Your task to perform on an android device: open device folders in google photos Image 0: 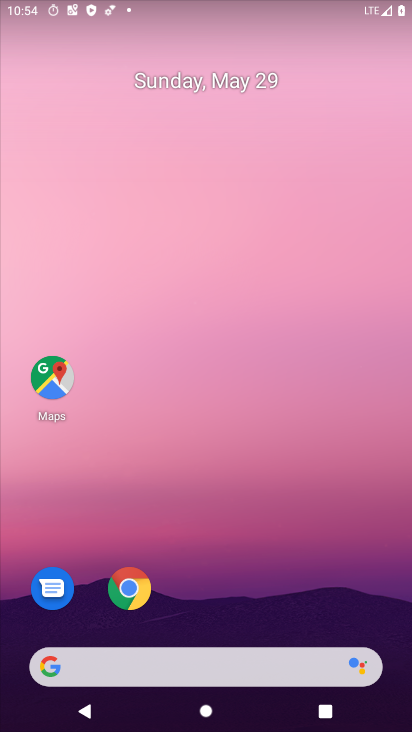
Step 0: drag from (230, 626) to (304, 146)
Your task to perform on an android device: open device folders in google photos Image 1: 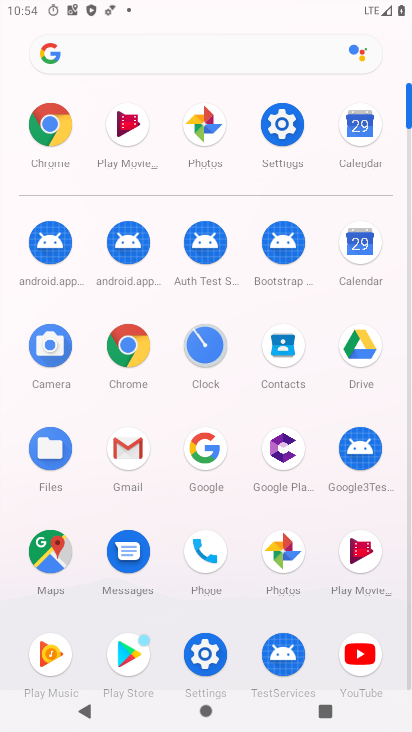
Step 1: click (281, 548)
Your task to perform on an android device: open device folders in google photos Image 2: 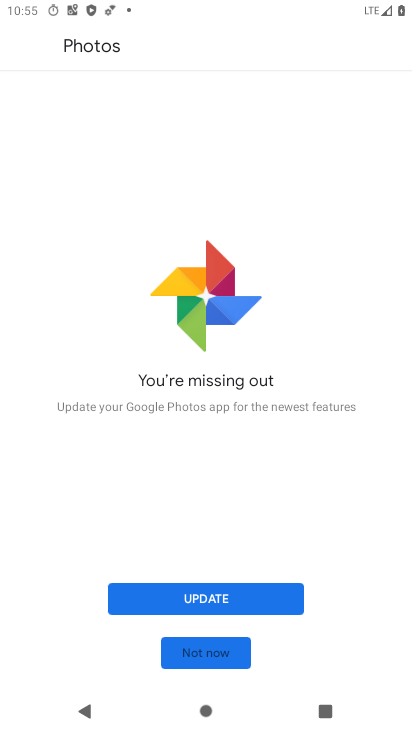
Step 2: click (221, 602)
Your task to perform on an android device: open device folders in google photos Image 3: 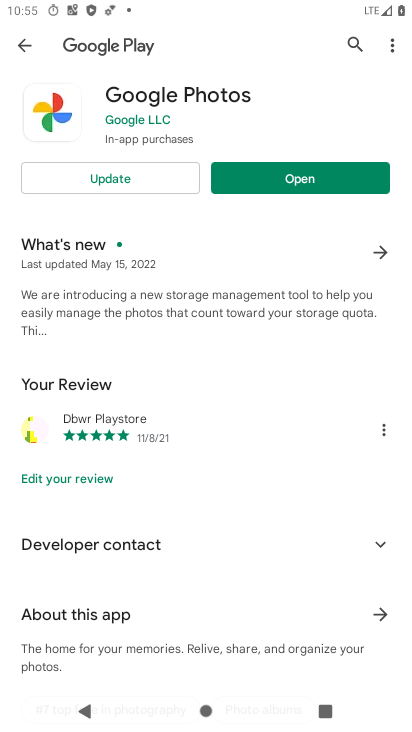
Step 3: click (146, 190)
Your task to perform on an android device: open device folders in google photos Image 4: 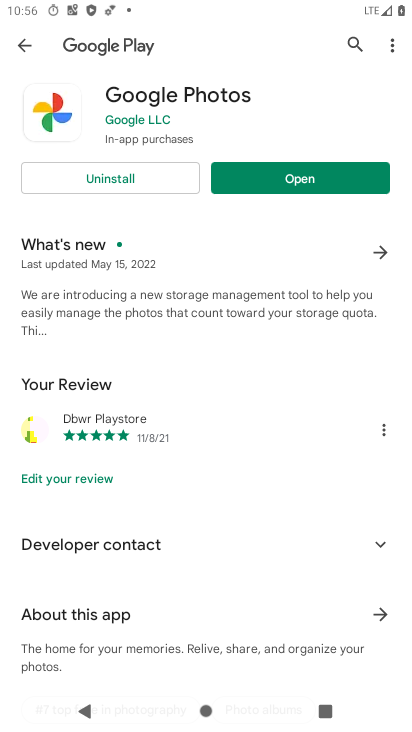
Step 4: click (332, 182)
Your task to perform on an android device: open device folders in google photos Image 5: 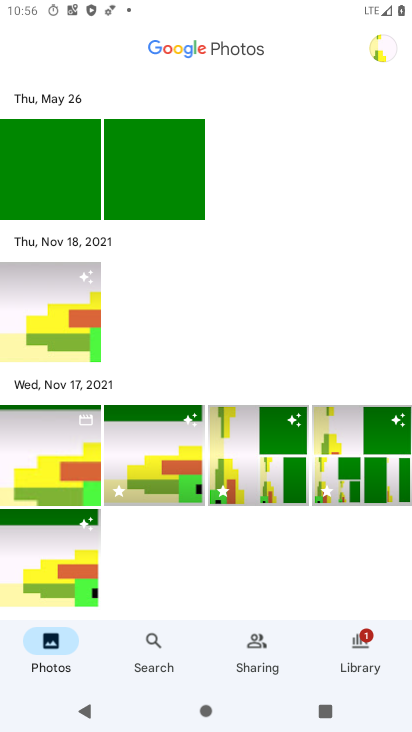
Step 5: click (373, 61)
Your task to perform on an android device: open device folders in google photos Image 6: 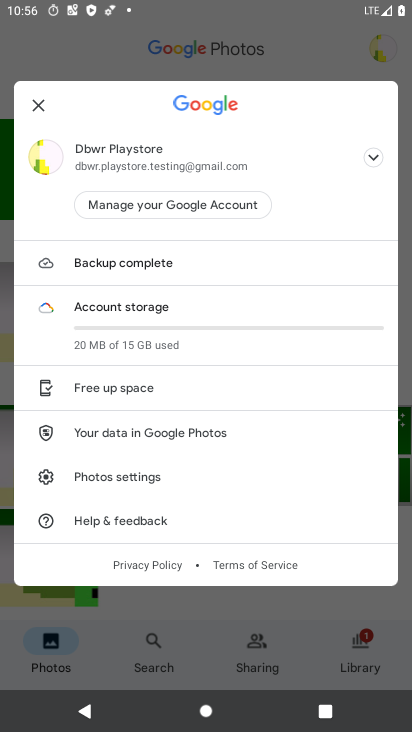
Step 6: click (164, 480)
Your task to perform on an android device: open device folders in google photos Image 7: 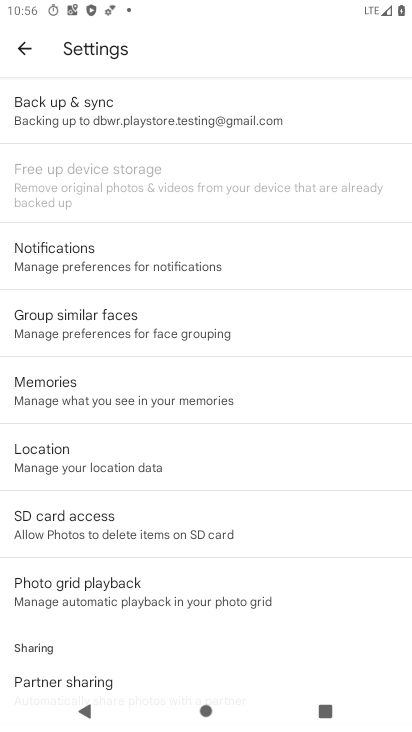
Step 7: click (148, 99)
Your task to perform on an android device: open device folders in google photos Image 8: 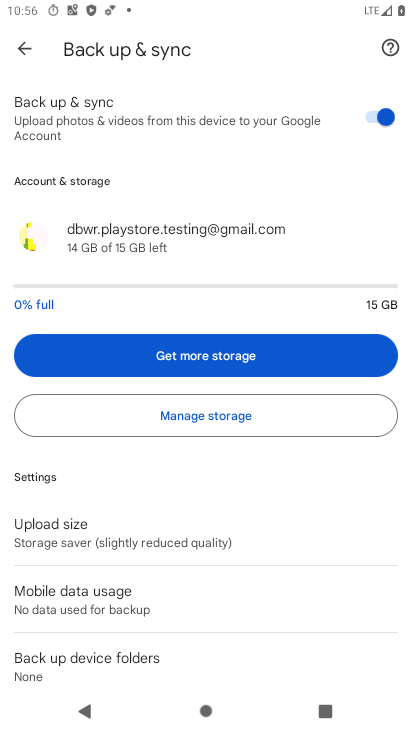
Step 8: drag from (169, 607) to (215, 210)
Your task to perform on an android device: open device folders in google photos Image 9: 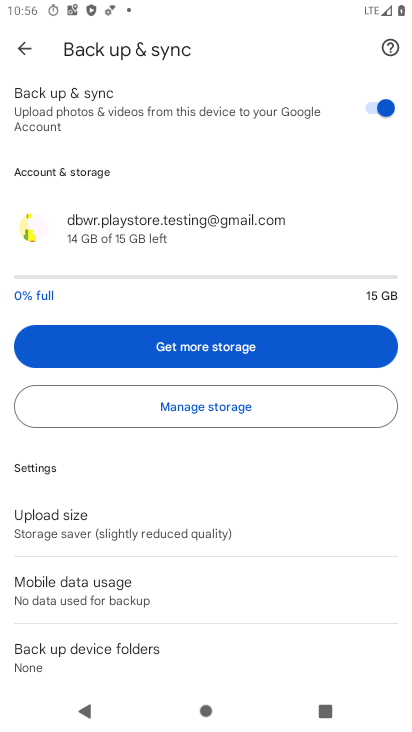
Step 9: click (170, 653)
Your task to perform on an android device: open device folders in google photos Image 10: 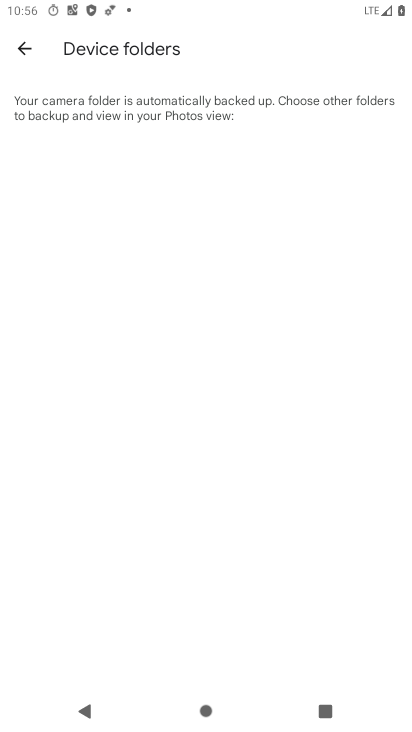
Step 10: task complete